Your task to perform on an android device: turn on translation in the chrome app Image 0: 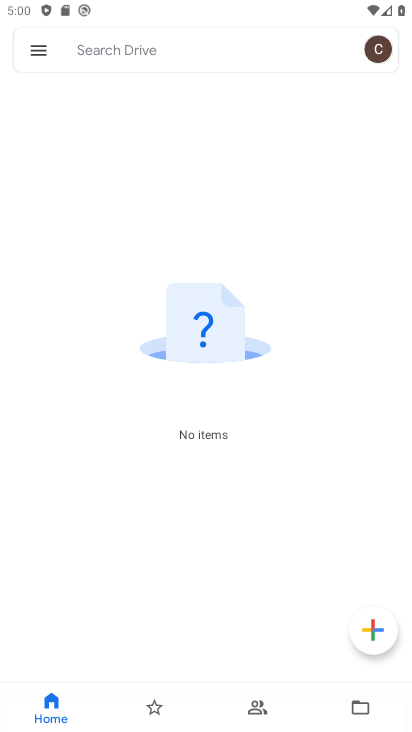
Step 0: press home button
Your task to perform on an android device: turn on translation in the chrome app Image 1: 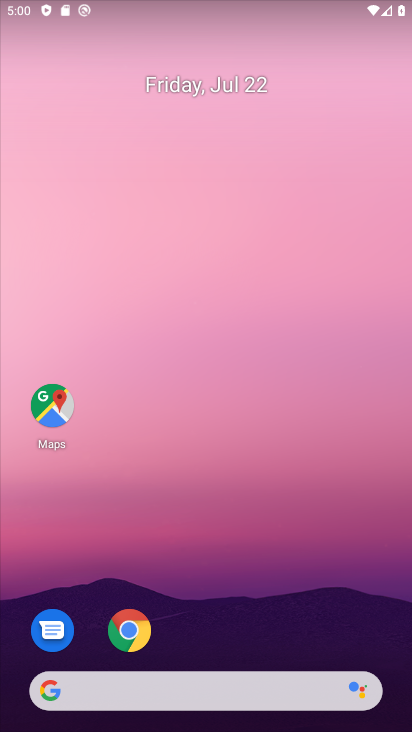
Step 1: drag from (174, 563) to (219, 69)
Your task to perform on an android device: turn on translation in the chrome app Image 2: 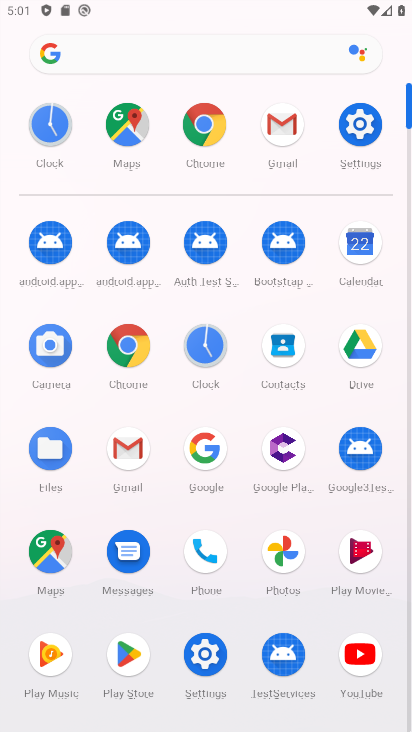
Step 2: click (205, 121)
Your task to perform on an android device: turn on translation in the chrome app Image 3: 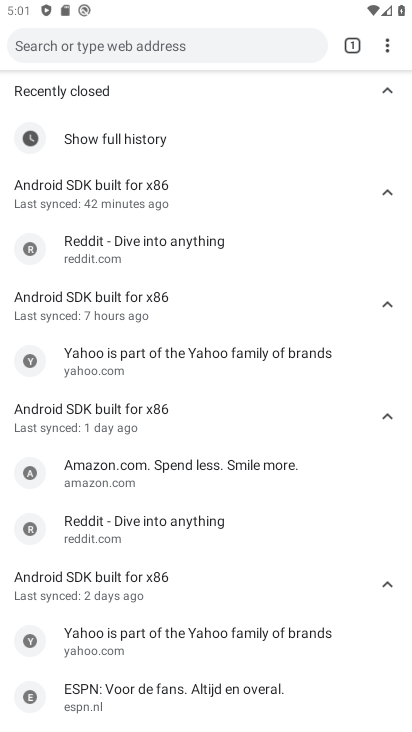
Step 3: click (386, 41)
Your task to perform on an android device: turn on translation in the chrome app Image 4: 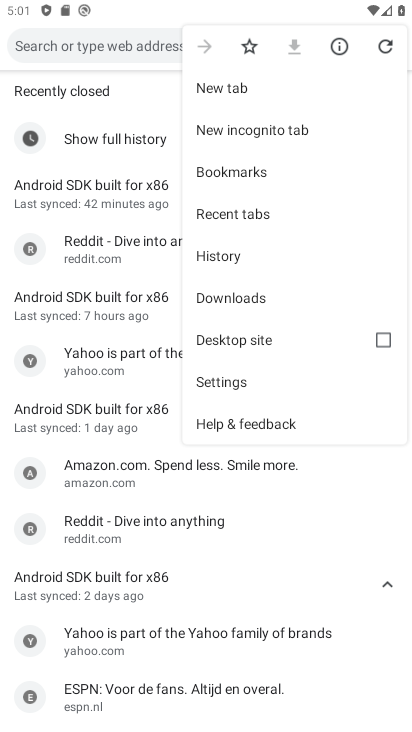
Step 4: click (227, 387)
Your task to perform on an android device: turn on translation in the chrome app Image 5: 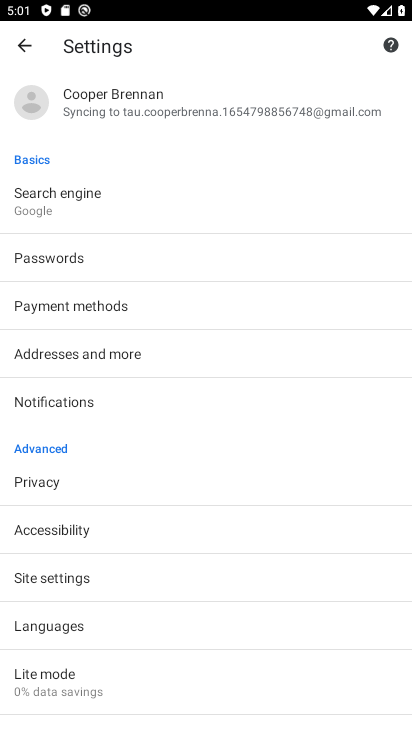
Step 5: click (63, 399)
Your task to perform on an android device: turn on translation in the chrome app Image 6: 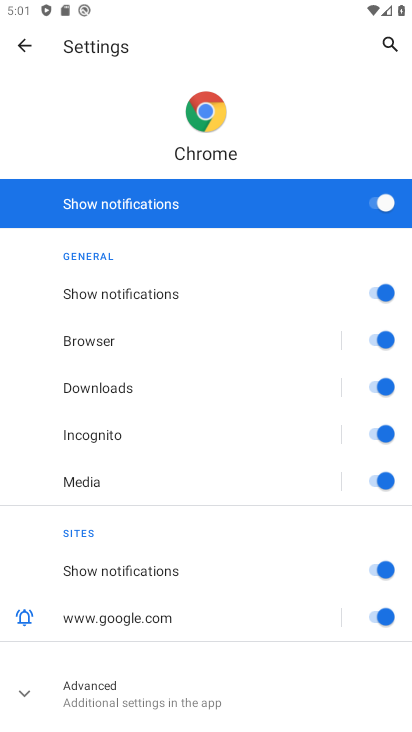
Step 6: press back button
Your task to perform on an android device: turn on translation in the chrome app Image 7: 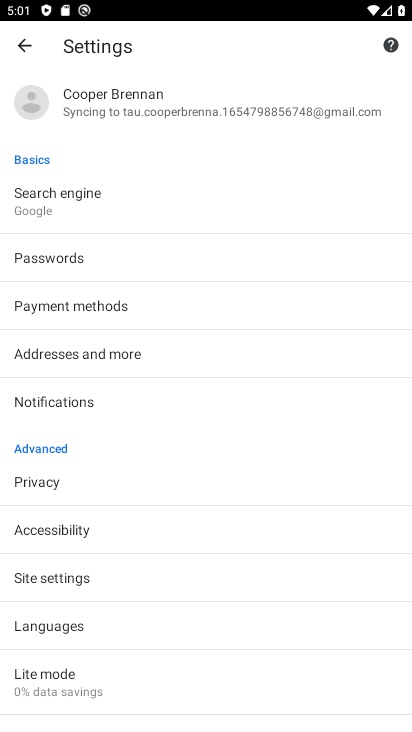
Step 7: click (55, 578)
Your task to perform on an android device: turn on translation in the chrome app Image 8: 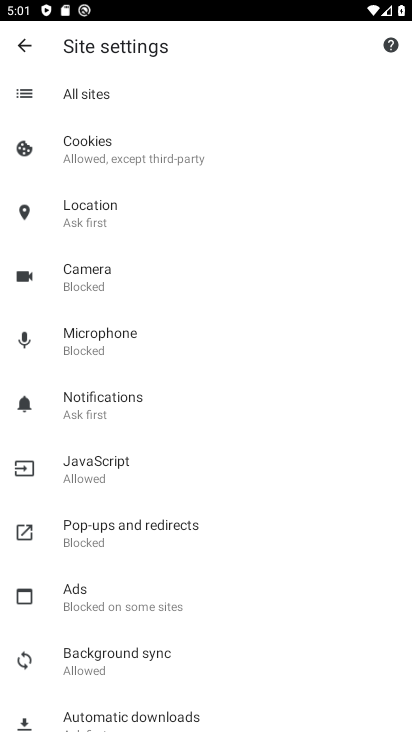
Step 8: press back button
Your task to perform on an android device: turn on translation in the chrome app Image 9: 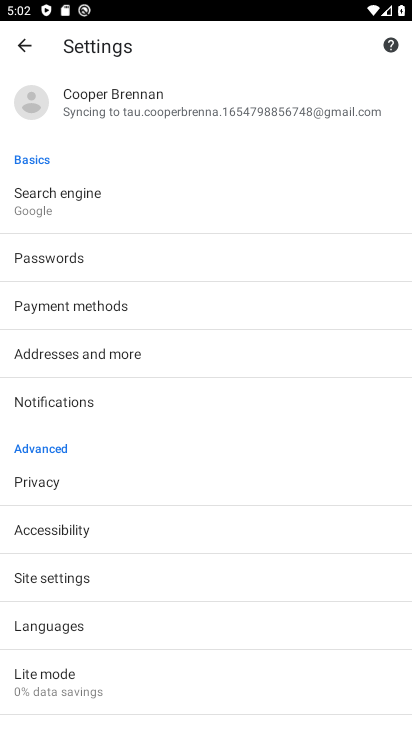
Step 9: drag from (51, 665) to (99, 349)
Your task to perform on an android device: turn on translation in the chrome app Image 10: 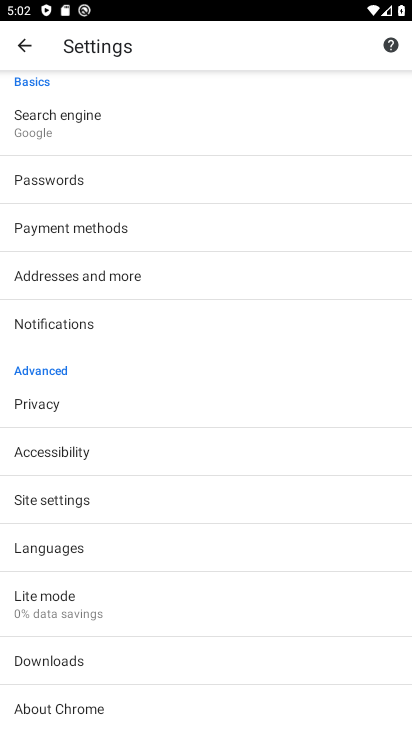
Step 10: click (52, 546)
Your task to perform on an android device: turn on translation in the chrome app Image 11: 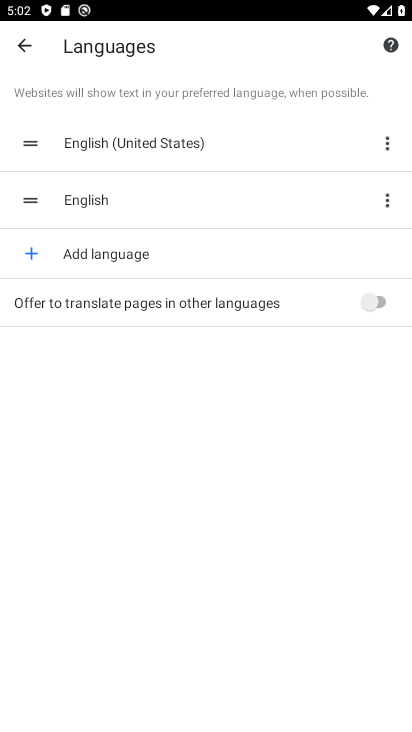
Step 11: click (381, 301)
Your task to perform on an android device: turn on translation in the chrome app Image 12: 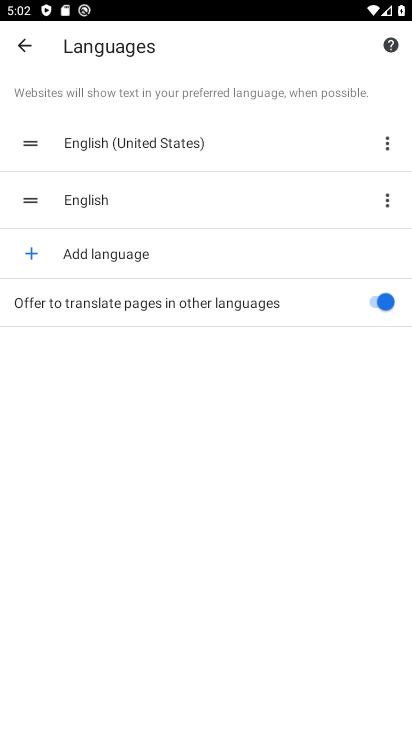
Step 12: task complete